Your task to perform on an android device: show emergency info Image 0: 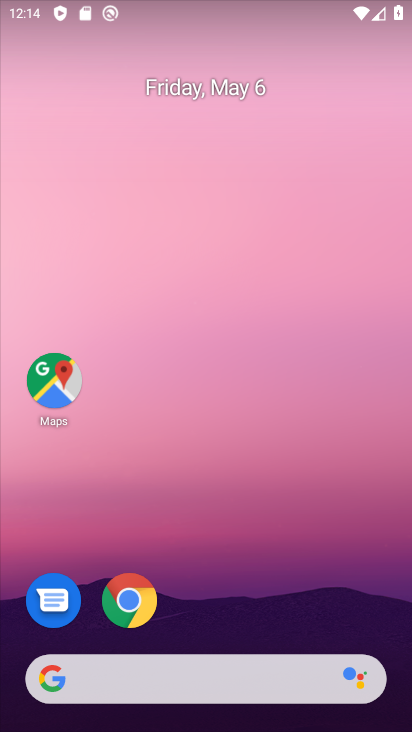
Step 0: drag from (360, 613) to (338, 50)
Your task to perform on an android device: show emergency info Image 1: 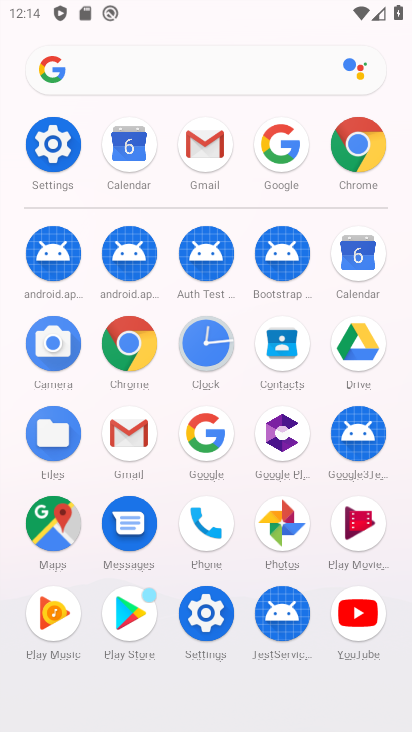
Step 1: click (172, 624)
Your task to perform on an android device: show emergency info Image 2: 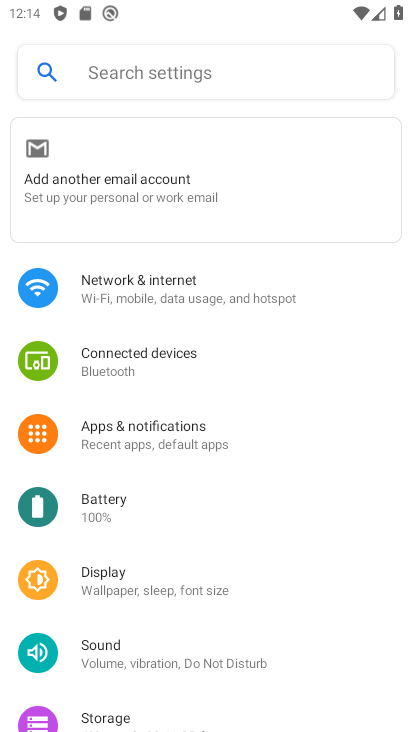
Step 2: drag from (188, 621) to (318, 60)
Your task to perform on an android device: show emergency info Image 3: 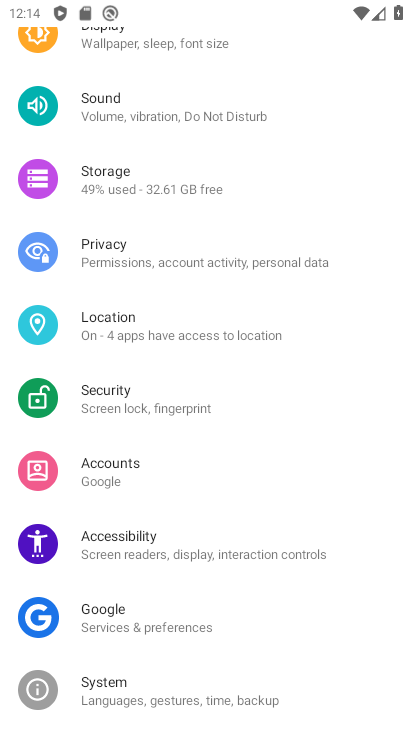
Step 3: drag from (156, 656) to (275, 146)
Your task to perform on an android device: show emergency info Image 4: 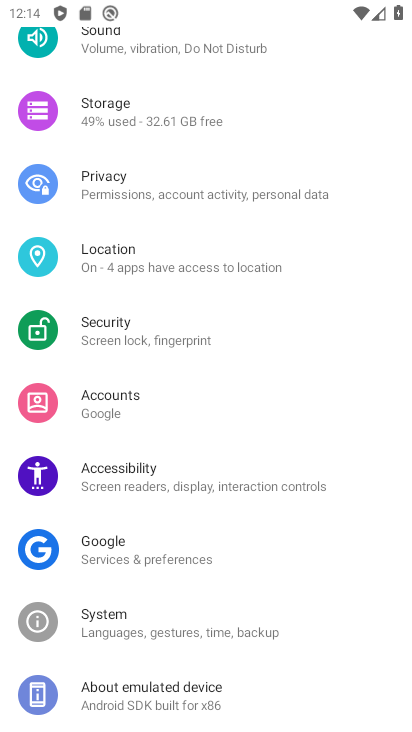
Step 4: click (156, 688)
Your task to perform on an android device: show emergency info Image 5: 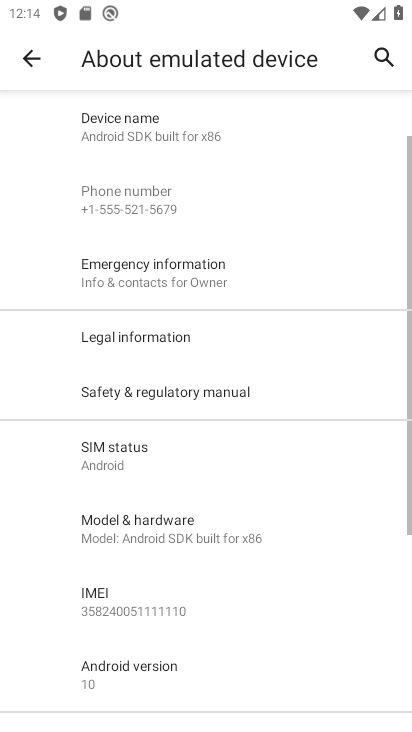
Step 5: click (207, 291)
Your task to perform on an android device: show emergency info Image 6: 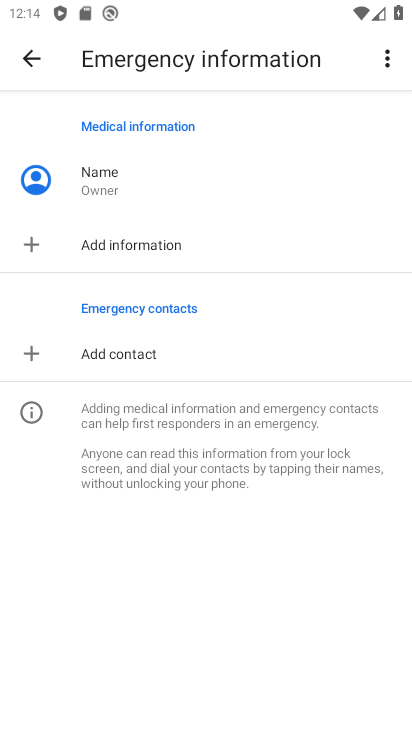
Step 6: task complete